Your task to perform on an android device: install app "Firefox Browser" Image 0: 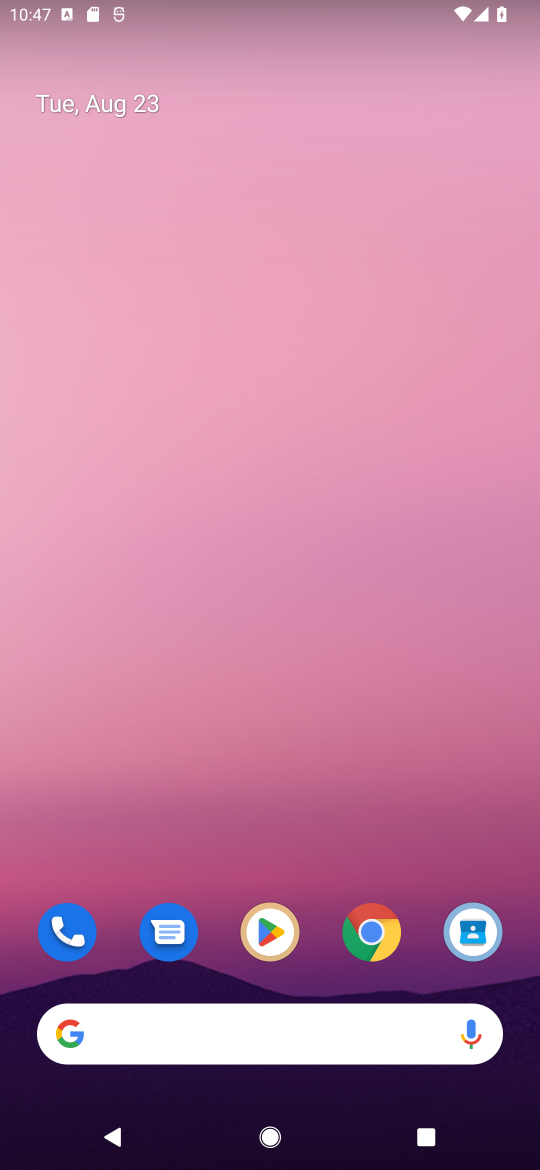
Step 0: click (265, 929)
Your task to perform on an android device: install app "Firefox Browser" Image 1: 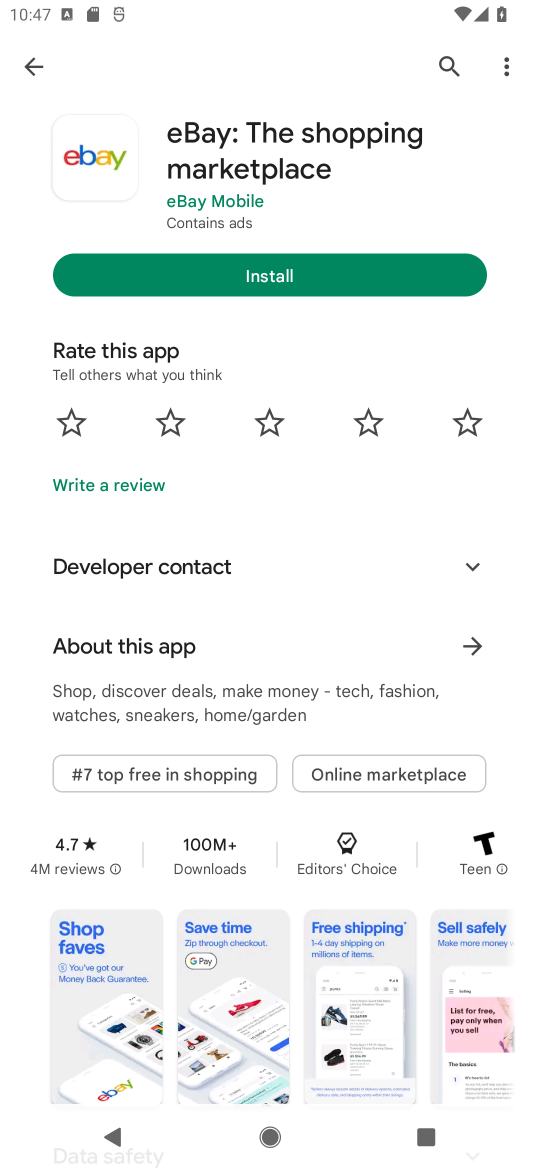
Step 1: click (452, 68)
Your task to perform on an android device: install app "Firefox Browser" Image 2: 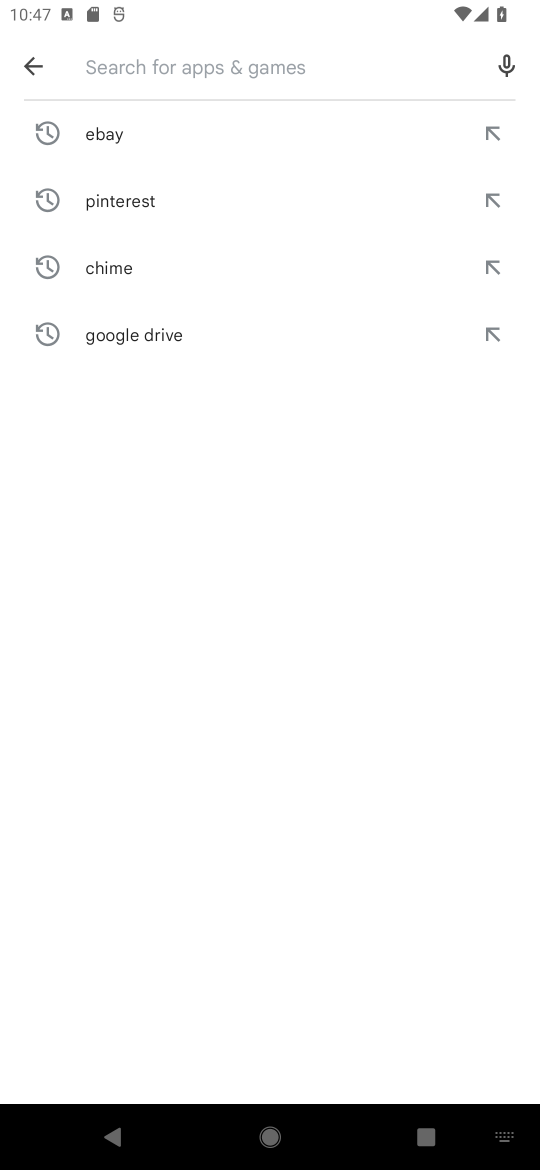
Step 2: click (213, 63)
Your task to perform on an android device: install app "Firefox Browser" Image 3: 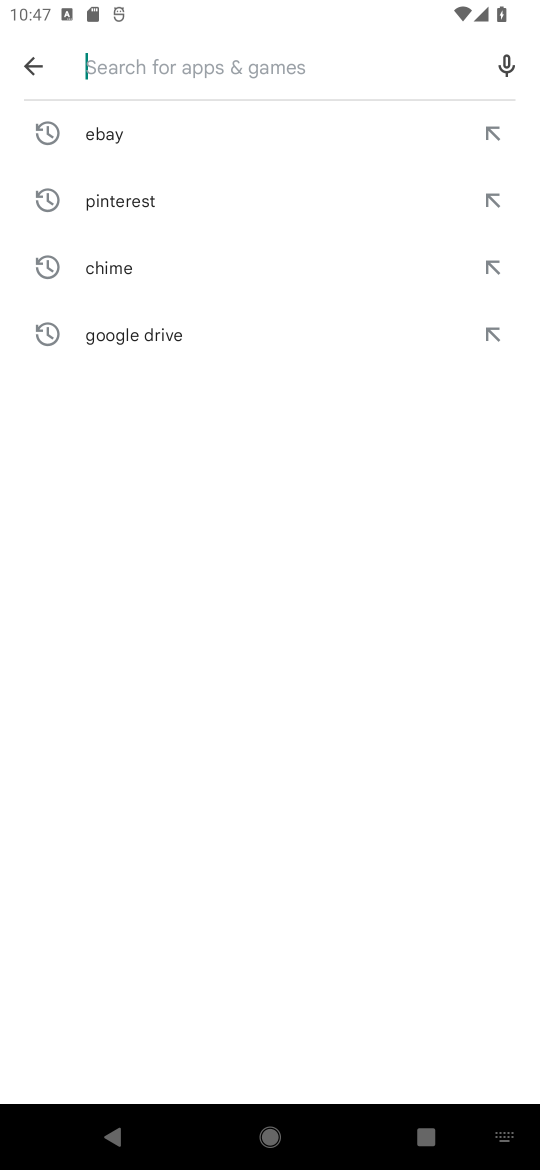
Step 3: type "Firefox Browser"
Your task to perform on an android device: install app "Firefox Browser" Image 4: 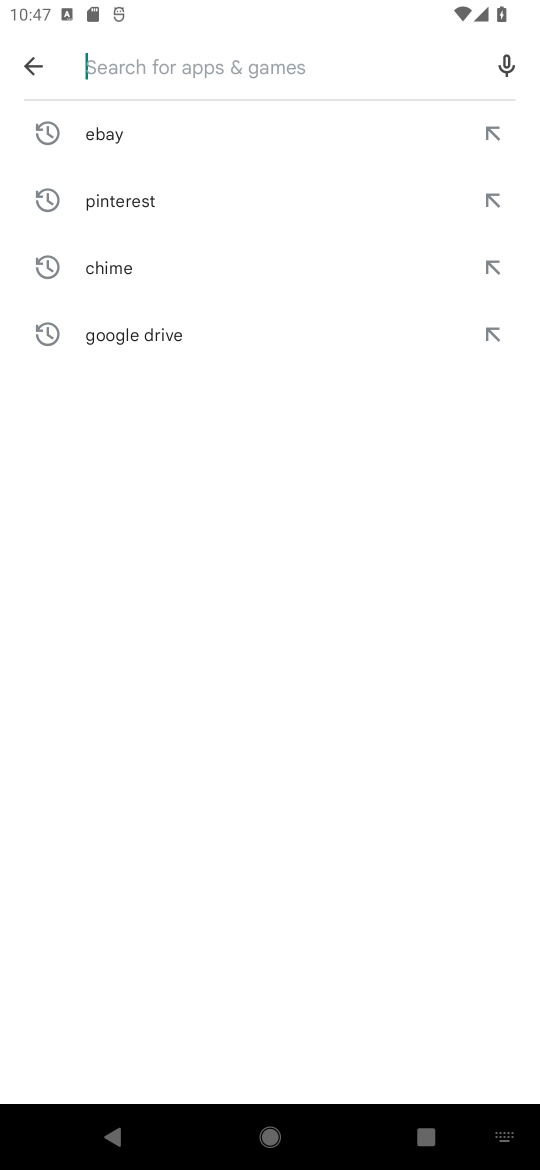
Step 4: click (321, 713)
Your task to perform on an android device: install app "Firefox Browser" Image 5: 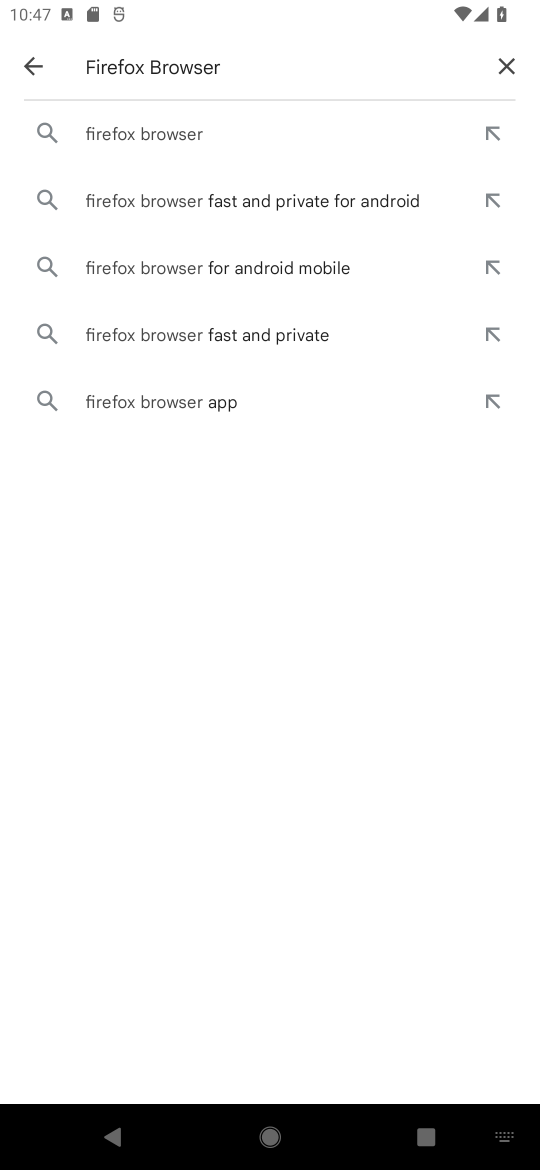
Step 5: click (163, 125)
Your task to perform on an android device: install app "Firefox Browser" Image 6: 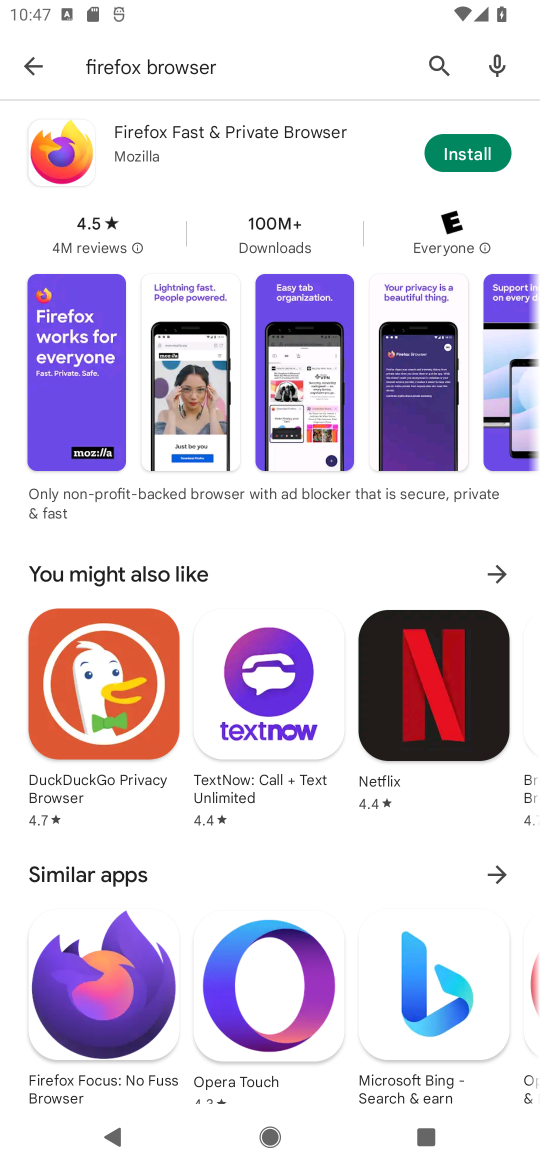
Step 6: click (462, 158)
Your task to perform on an android device: install app "Firefox Browser" Image 7: 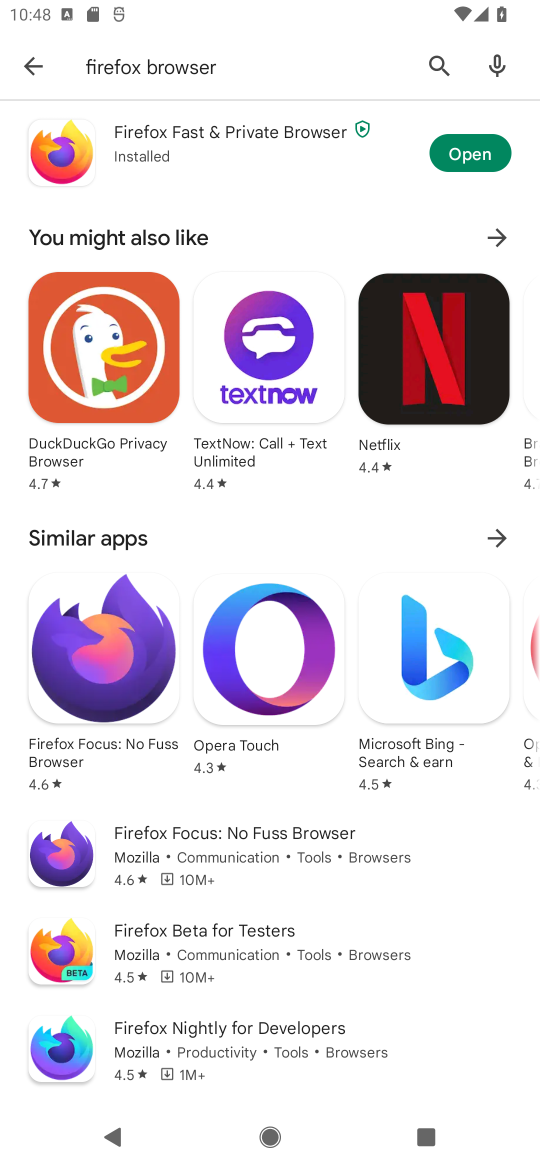
Step 7: task complete